Your task to perform on an android device: Open the Play Movies app and select the watchlist tab. Image 0: 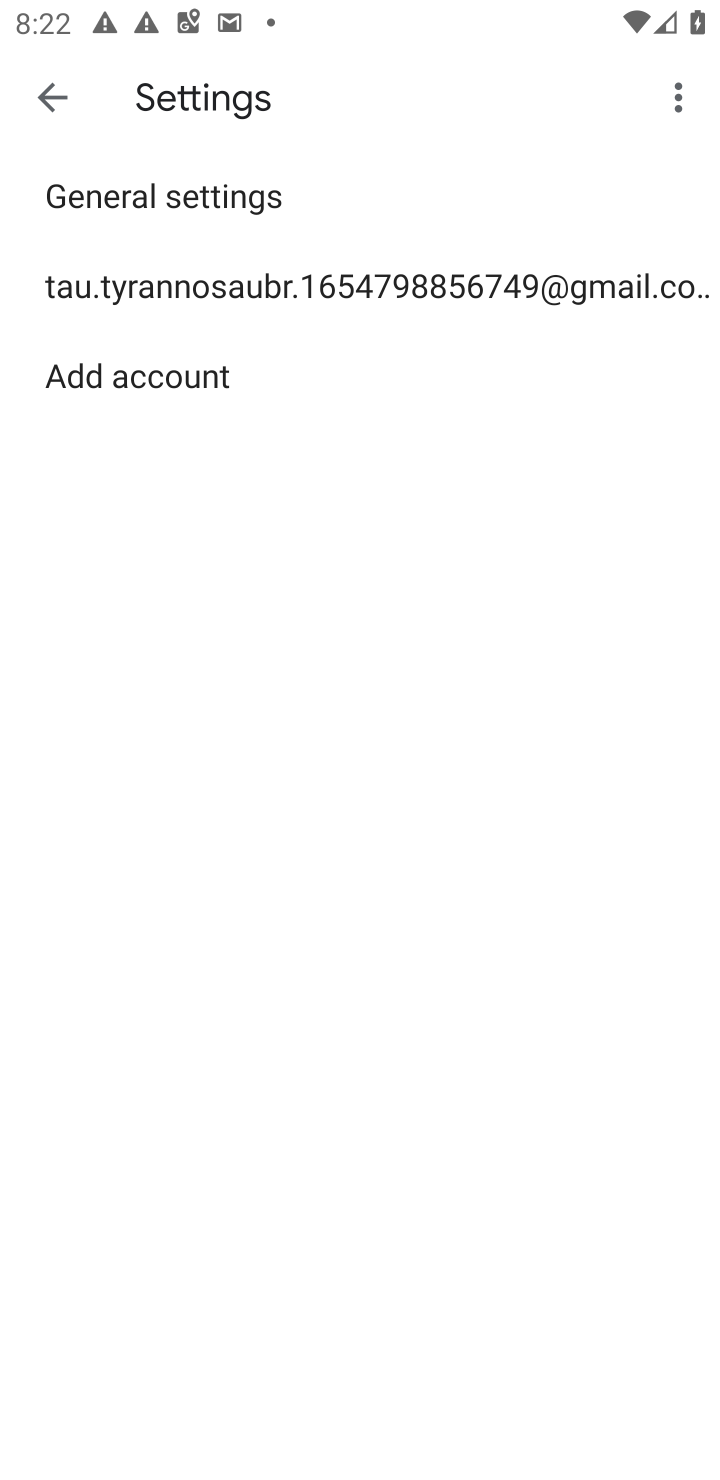
Step 0: press home button
Your task to perform on an android device: Open the Play Movies app and select the watchlist tab. Image 1: 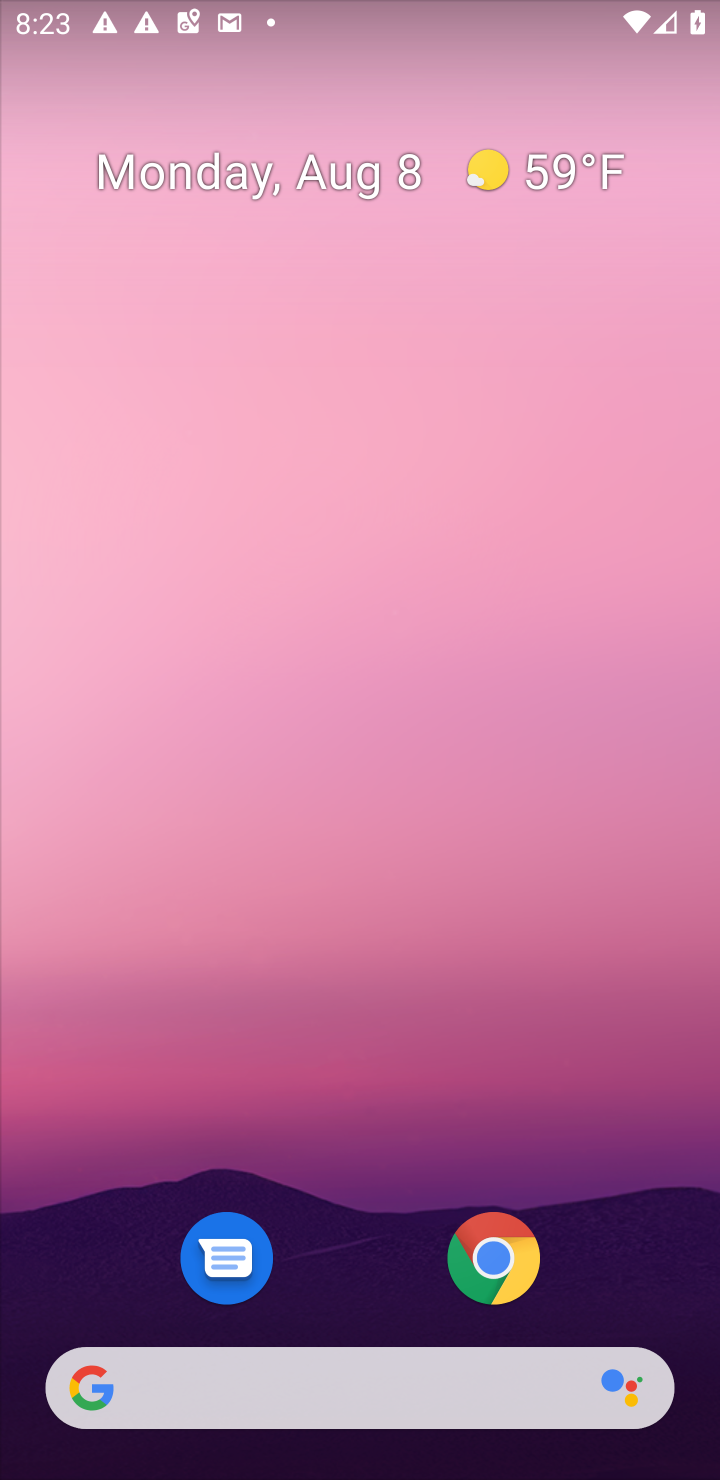
Step 1: click (601, 451)
Your task to perform on an android device: Open the Play Movies app and select the watchlist tab. Image 2: 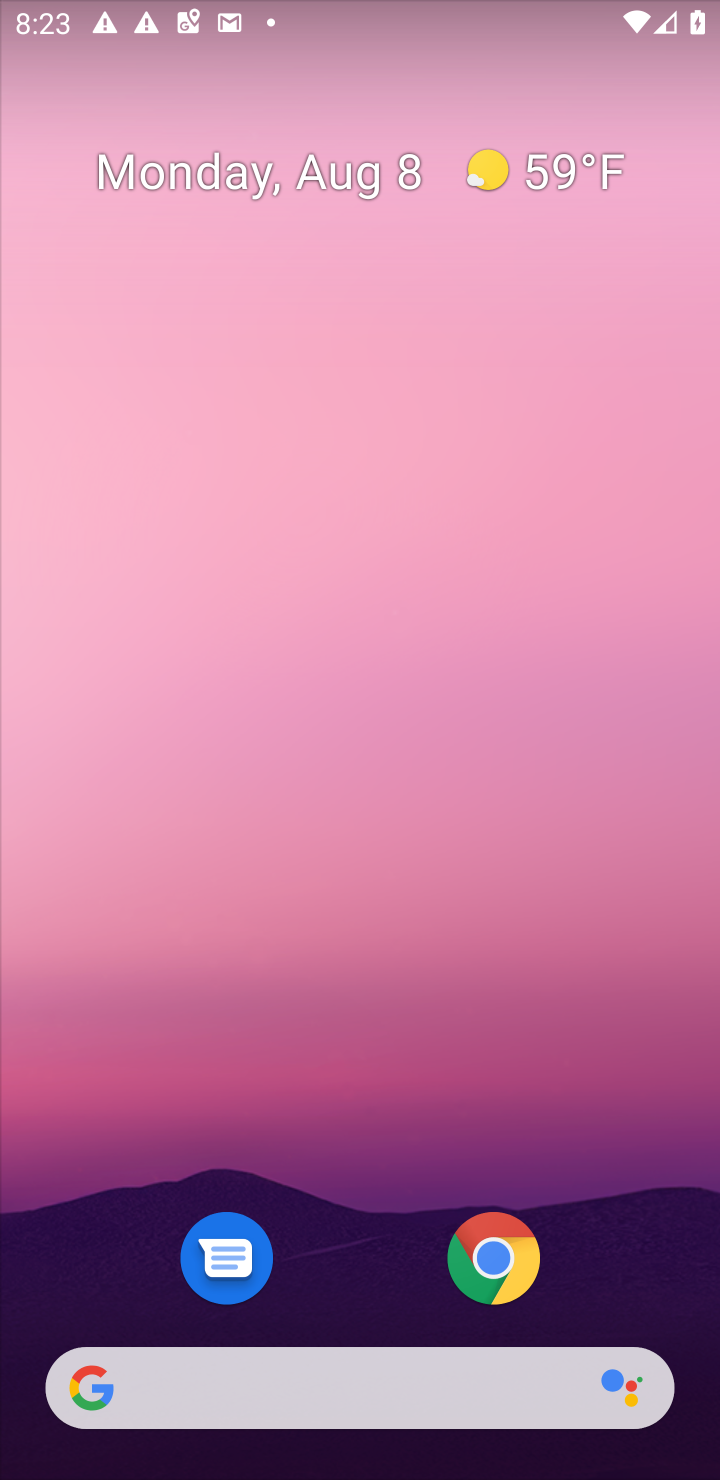
Step 2: click (379, 486)
Your task to perform on an android device: Open the Play Movies app and select the watchlist tab. Image 3: 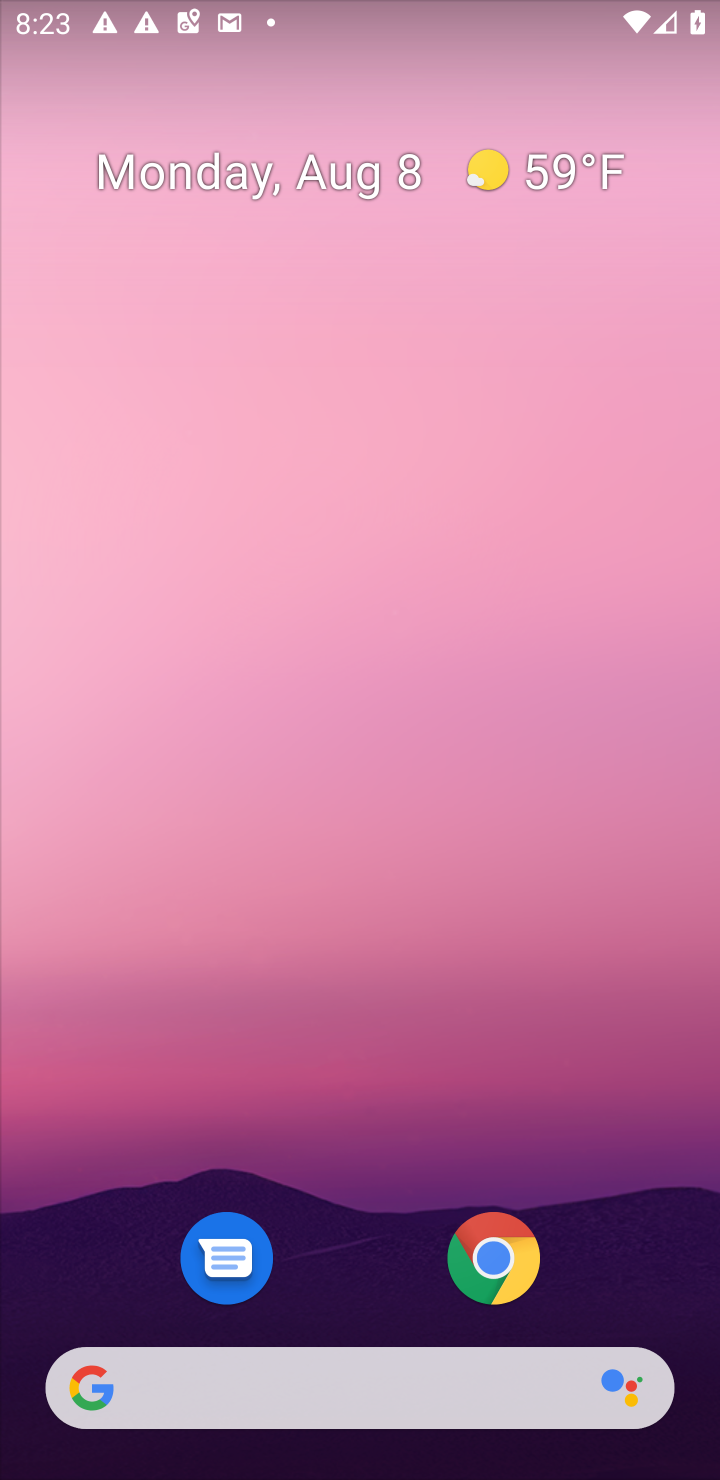
Step 3: drag from (513, 768) to (527, 163)
Your task to perform on an android device: Open the Play Movies app and select the watchlist tab. Image 4: 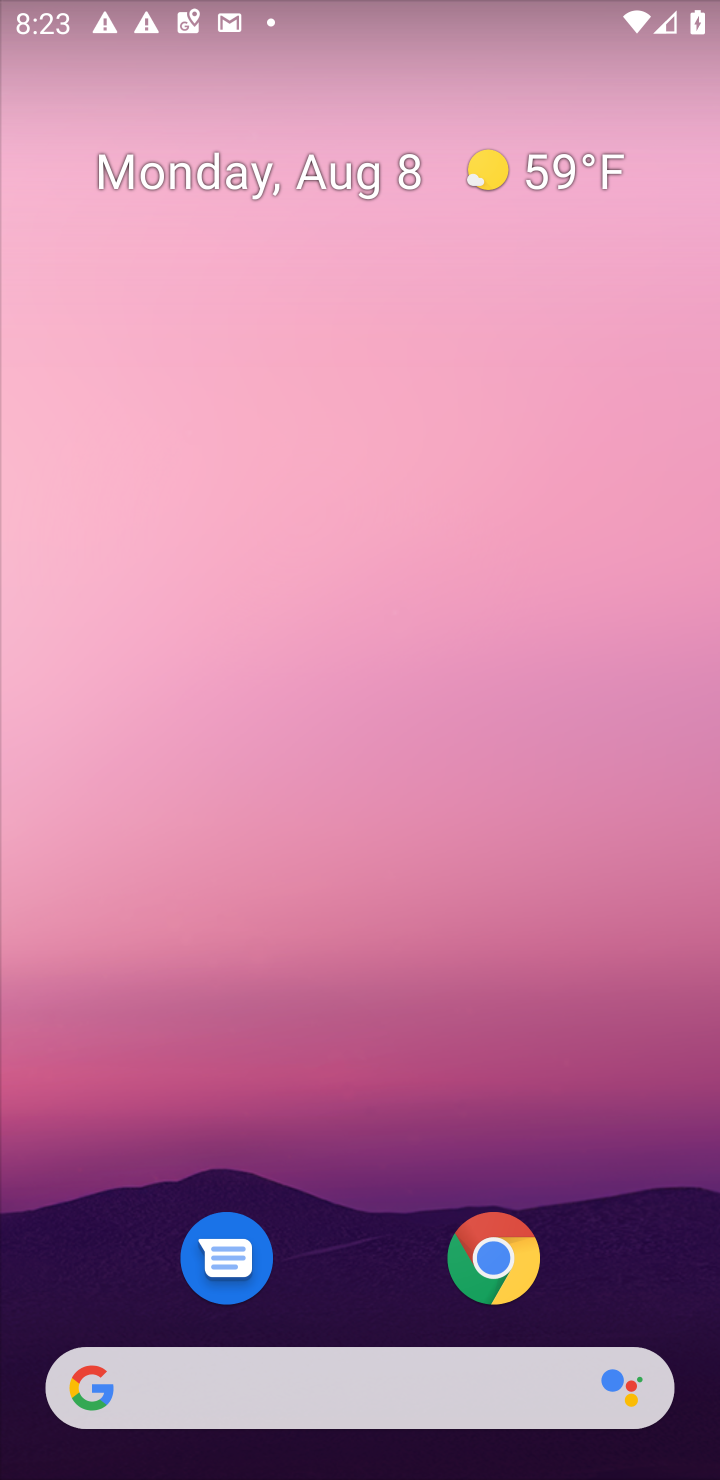
Step 4: drag from (523, 920) to (649, 280)
Your task to perform on an android device: Open the Play Movies app and select the watchlist tab. Image 5: 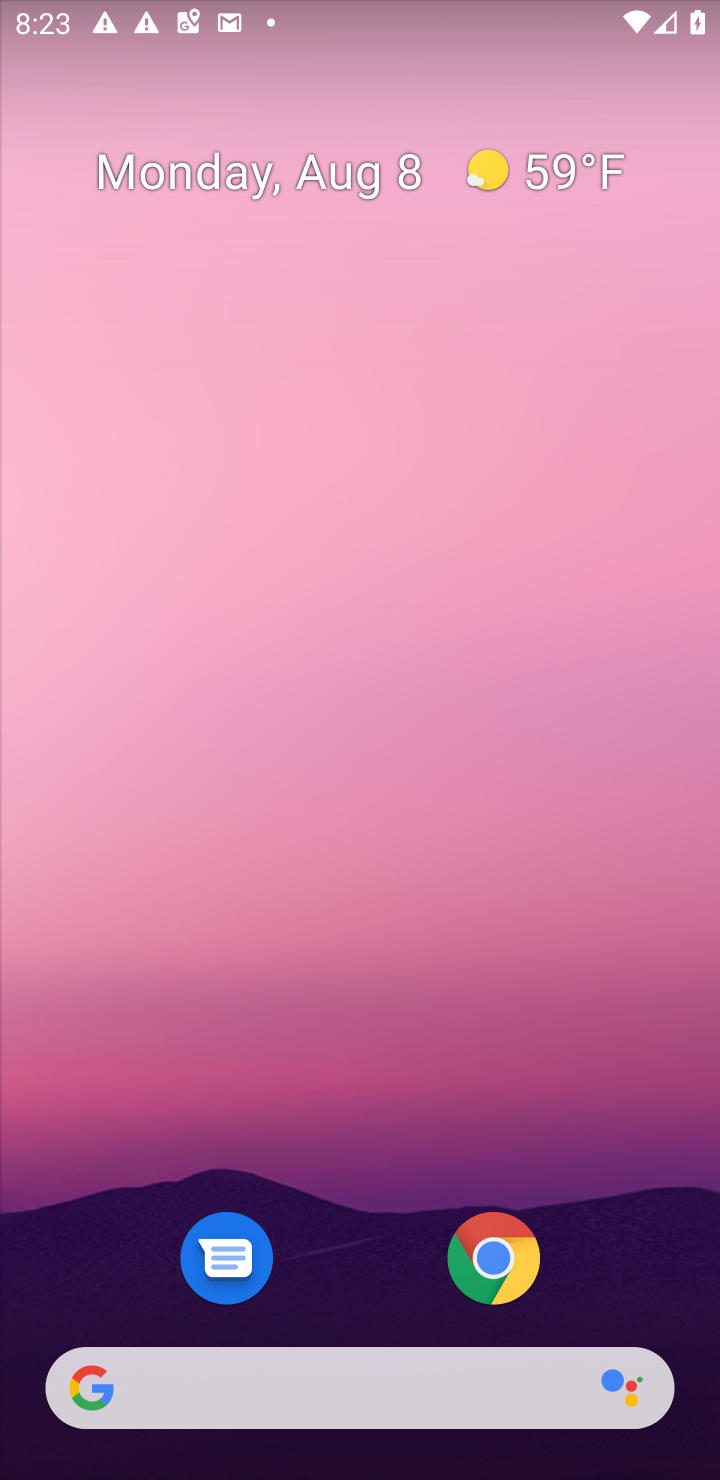
Step 5: drag from (482, 872) to (470, 201)
Your task to perform on an android device: Open the Play Movies app and select the watchlist tab. Image 6: 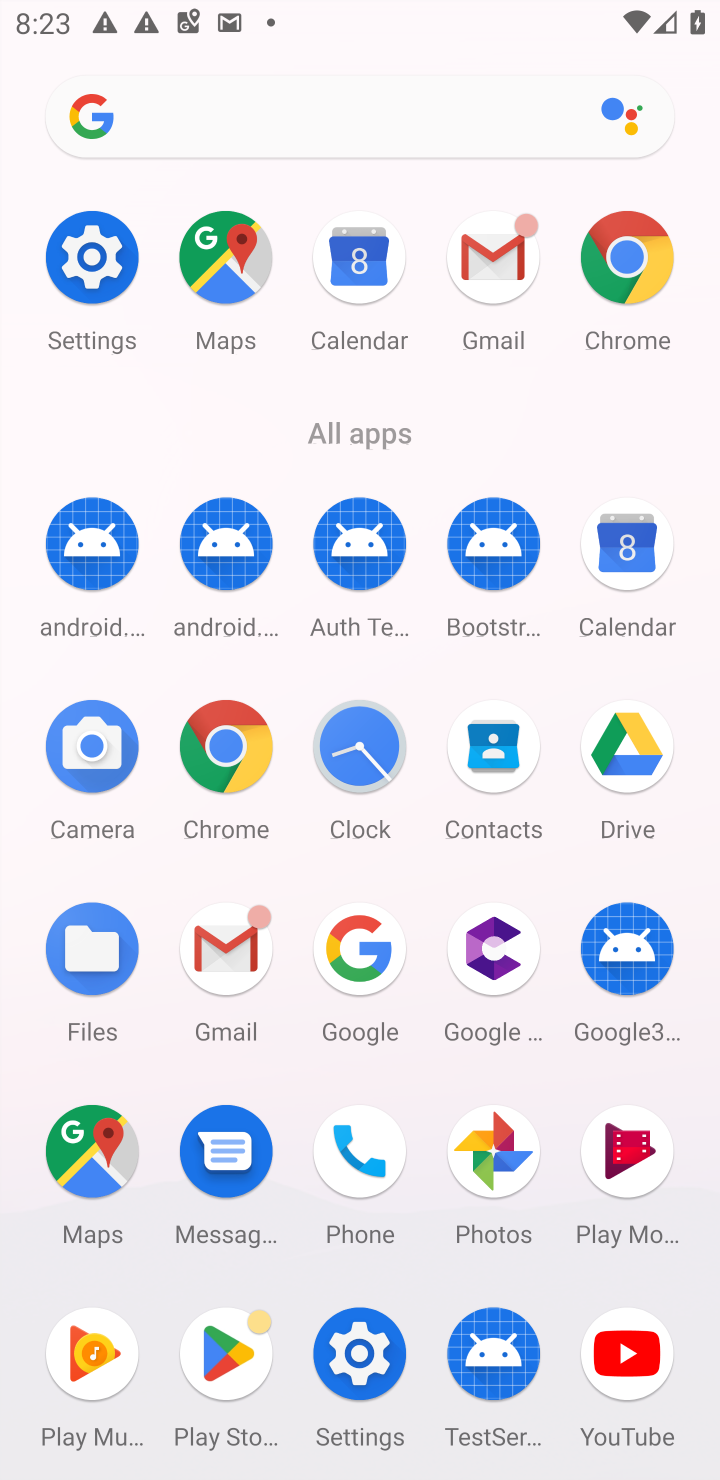
Step 6: click (628, 1375)
Your task to perform on an android device: Open the Play Movies app and select the watchlist tab. Image 7: 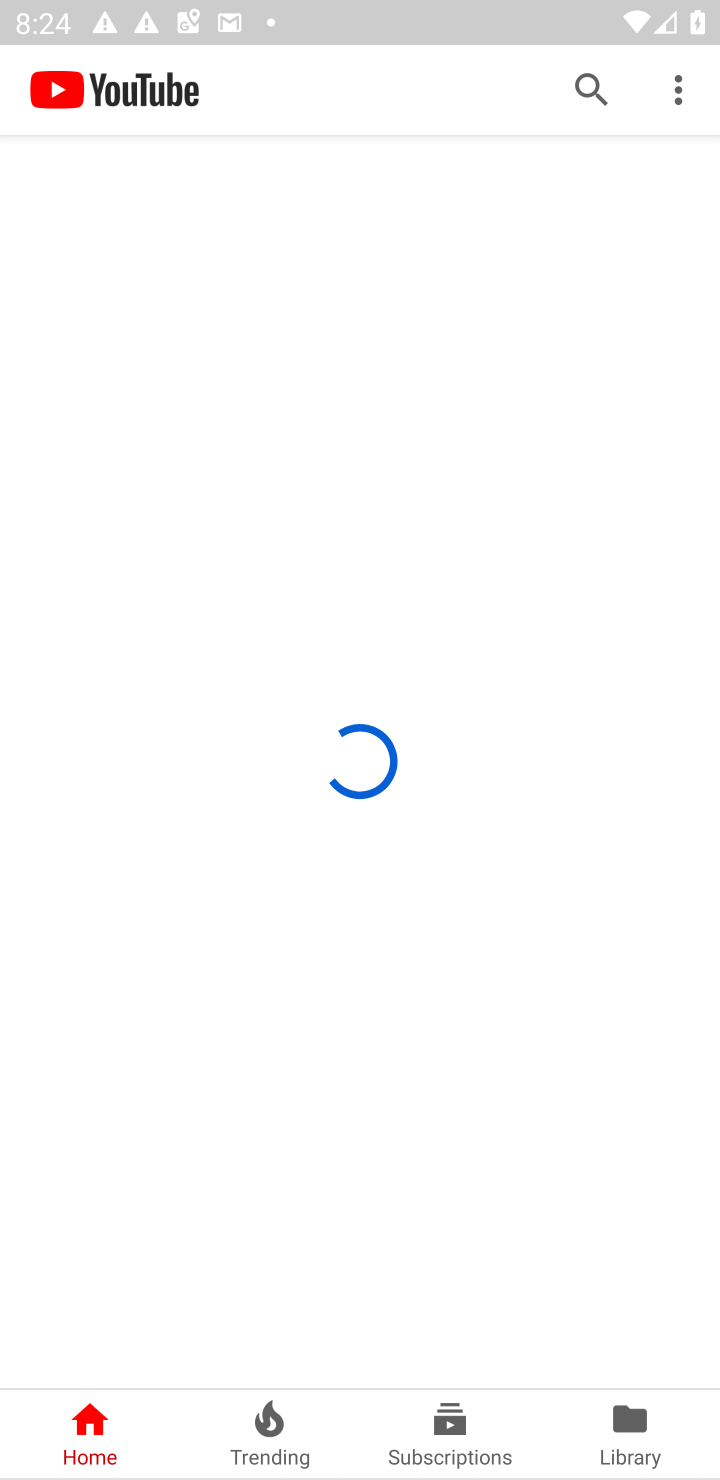
Step 7: task complete